Your task to perform on an android device: What's on my calendar tomorrow? Image 0: 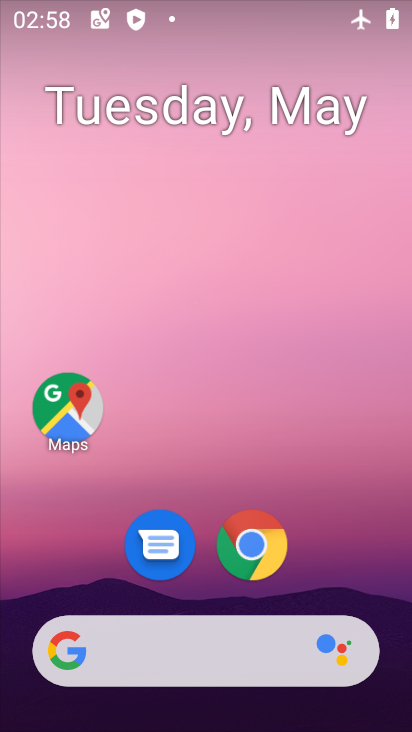
Step 0: drag from (384, 627) to (298, 144)
Your task to perform on an android device: What's on my calendar tomorrow? Image 1: 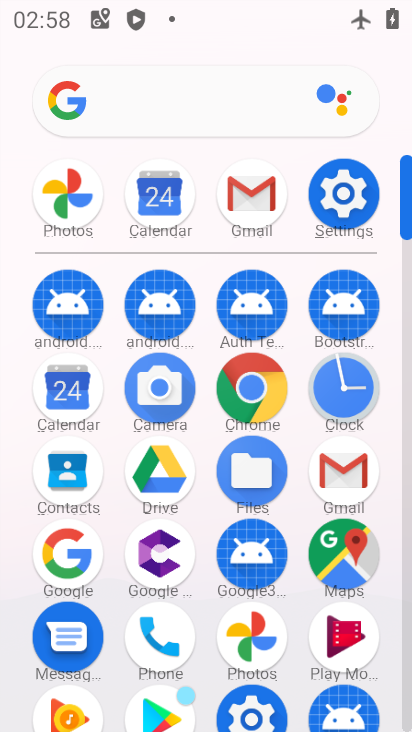
Step 1: click (409, 651)
Your task to perform on an android device: What's on my calendar tomorrow? Image 2: 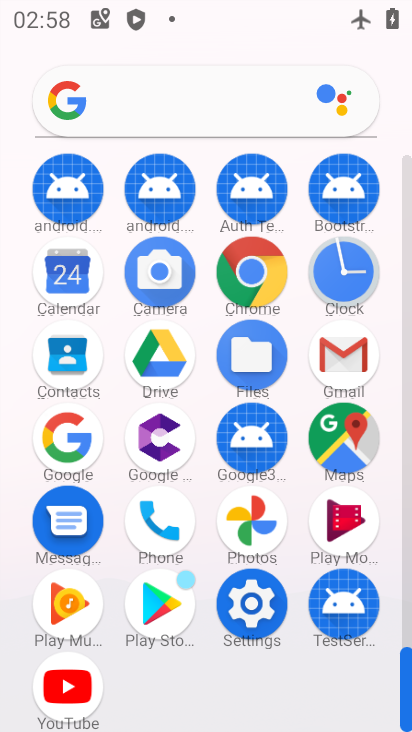
Step 2: click (63, 269)
Your task to perform on an android device: What's on my calendar tomorrow? Image 3: 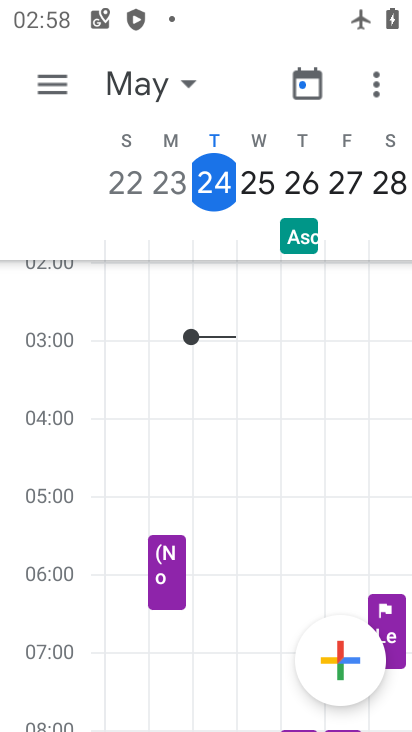
Step 3: click (51, 84)
Your task to perform on an android device: What's on my calendar tomorrow? Image 4: 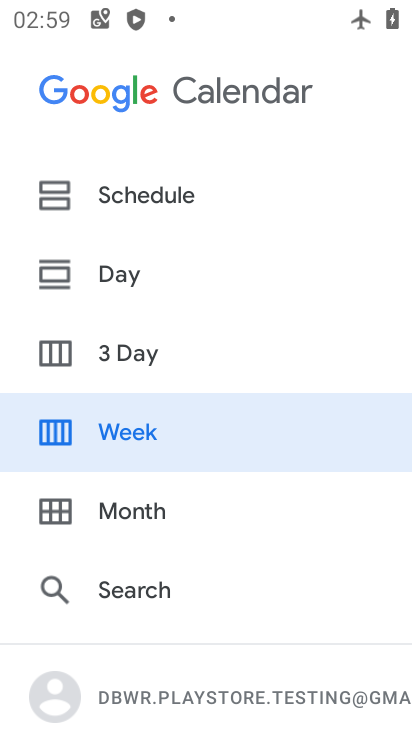
Step 4: click (114, 273)
Your task to perform on an android device: What's on my calendar tomorrow? Image 5: 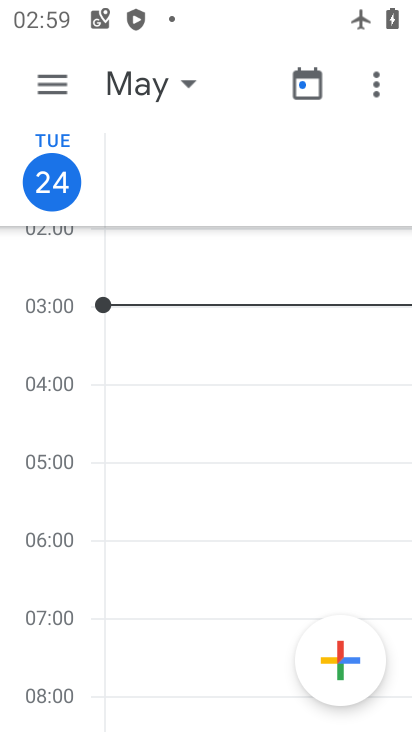
Step 5: click (185, 80)
Your task to perform on an android device: What's on my calendar tomorrow? Image 6: 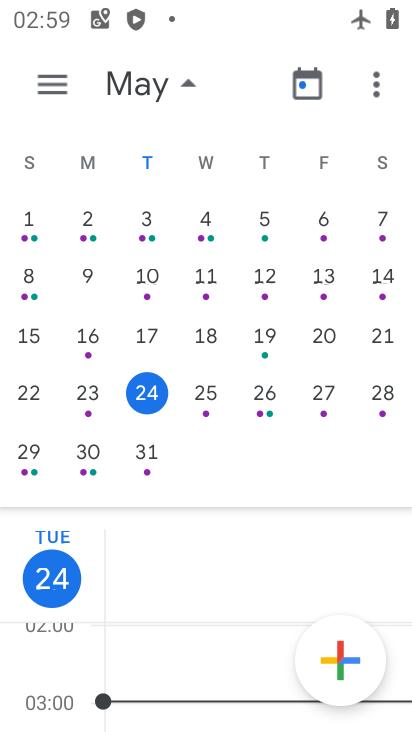
Step 6: click (210, 390)
Your task to perform on an android device: What's on my calendar tomorrow? Image 7: 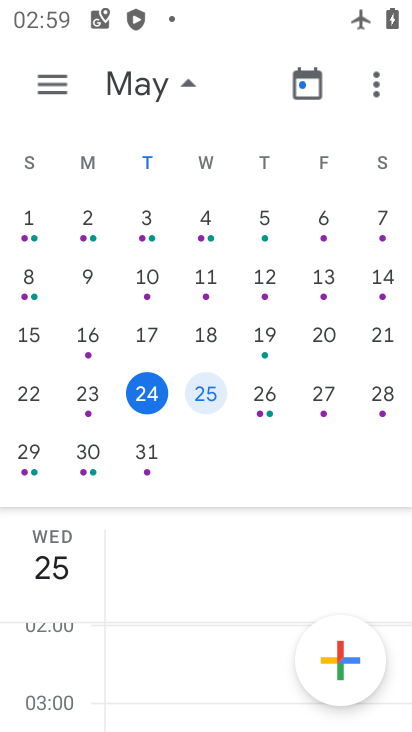
Step 7: task complete